Your task to perform on an android device: Open the web browser Image 0: 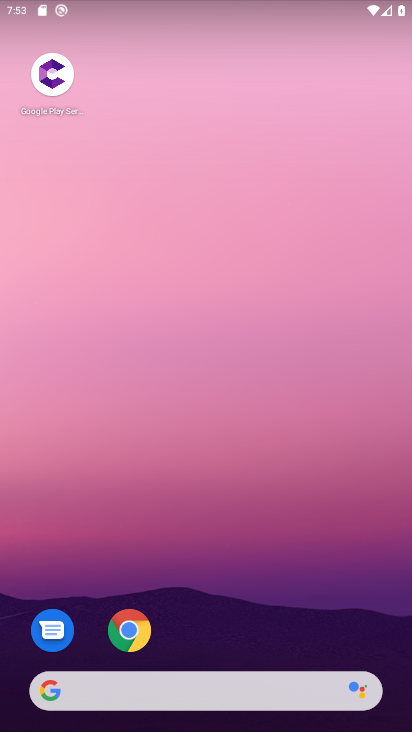
Step 0: click (121, 626)
Your task to perform on an android device: Open the web browser Image 1: 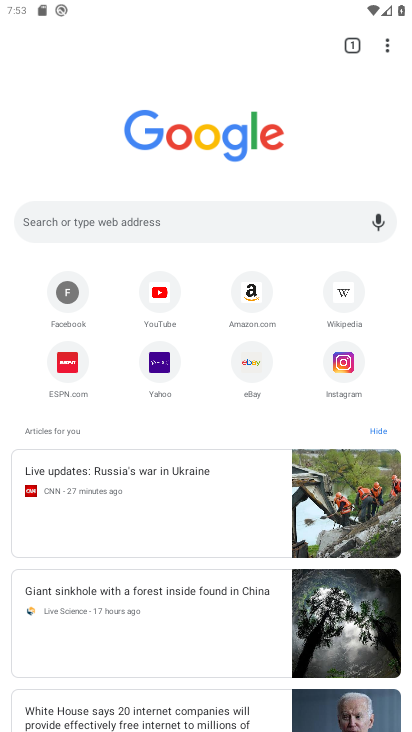
Step 1: task complete